Your task to perform on an android device: Open Wikipedia Image 0: 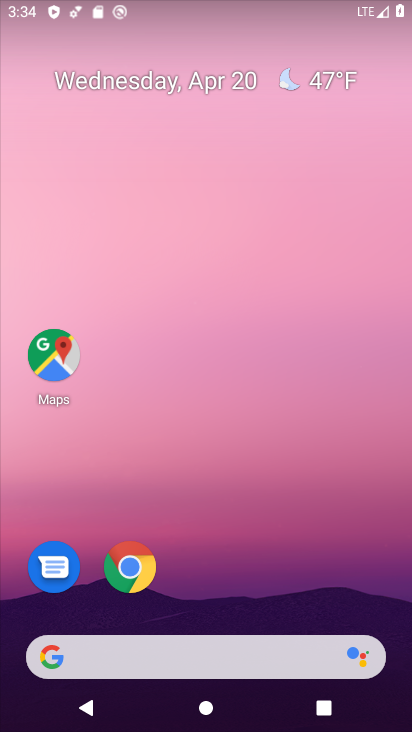
Step 0: drag from (305, 544) to (250, 33)
Your task to perform on an android device: Open Wikipedia Image 1: 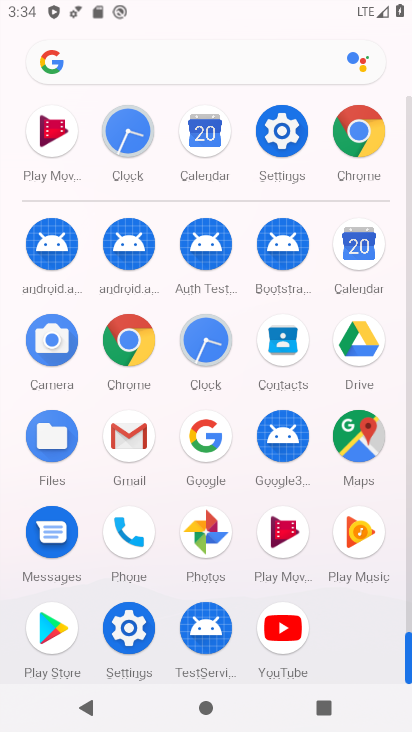
Step 1: drag from (9, 552) to (7, 318)
Your task to perform on an android device: Open Wikipedia Image 2: 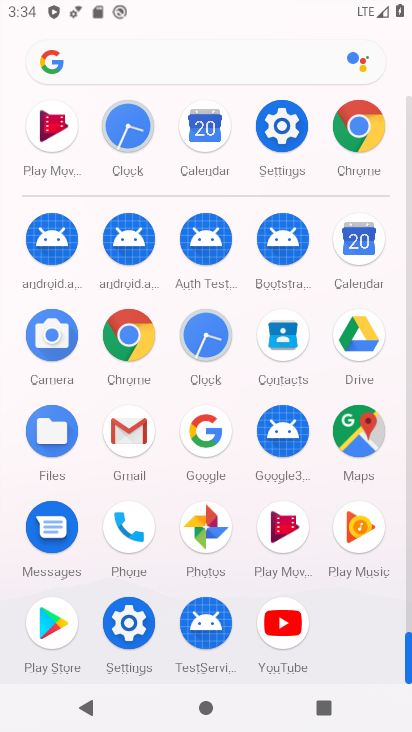
Step 2: click (129, 336)
Your task to perform on an android device: Open Wikipedia Image 3: 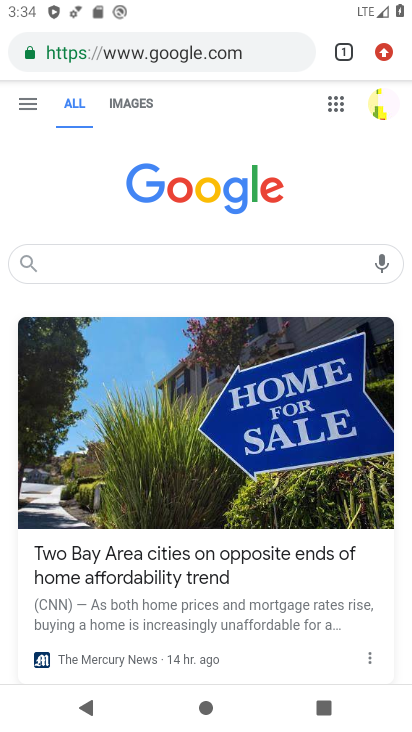
Step 3: click (172, 58)
Your task to perform on an android device: Open Wikipedia Image 4: 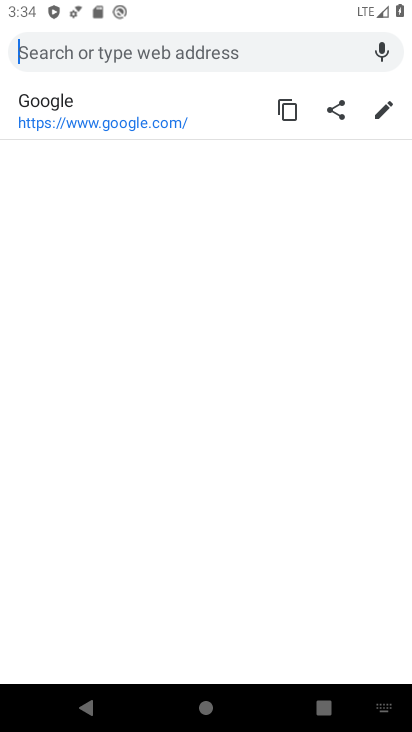
Step 4: type " Wikipedia"
Your task to perform on an android device: Open Wikipedia Image 5: 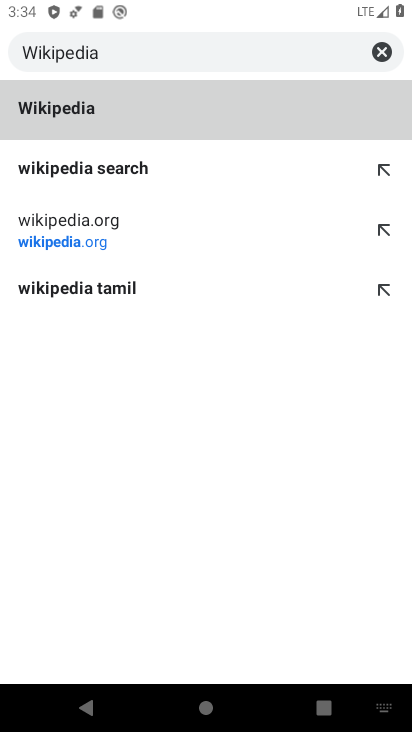
Step 5: click (113, 238)
Your task to perform on an android device: Open Wikipedia Image 6: 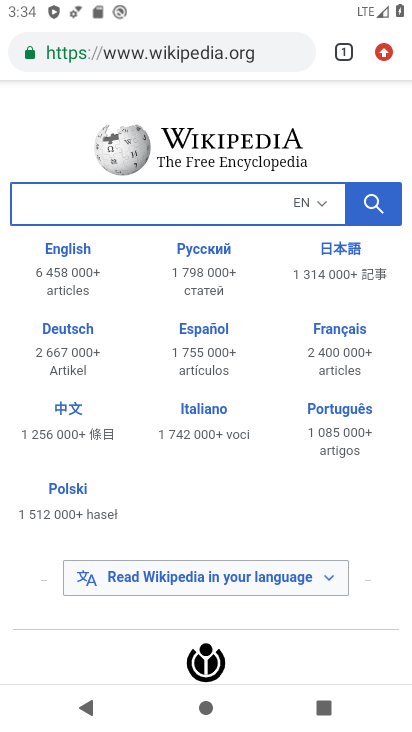
Step 6: task complete